Your task to perform on an android device: open app "Etsy: Buy & Sell Unique Items" (install if not already installed) Image 0: 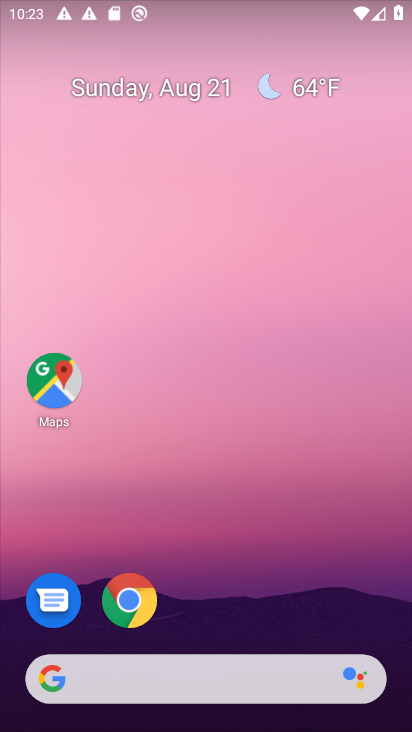
Step 0: drag from (217, 616) to (274, 208)
Your task to perform on an android device: open app "Etsy: Buy & Sell Unique Items" (install if not already installed) Image 1: 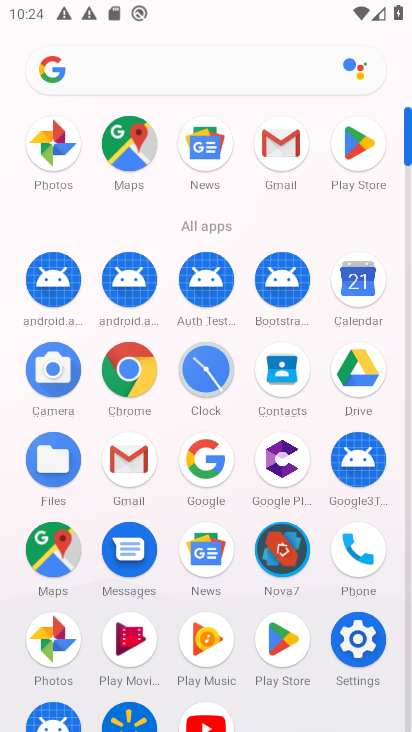
Step 1: click (359, 167)
Your task to perform on an android device: open app "Etsy: Buy & Sell Unique Items" (install if not already installed) Image 2: 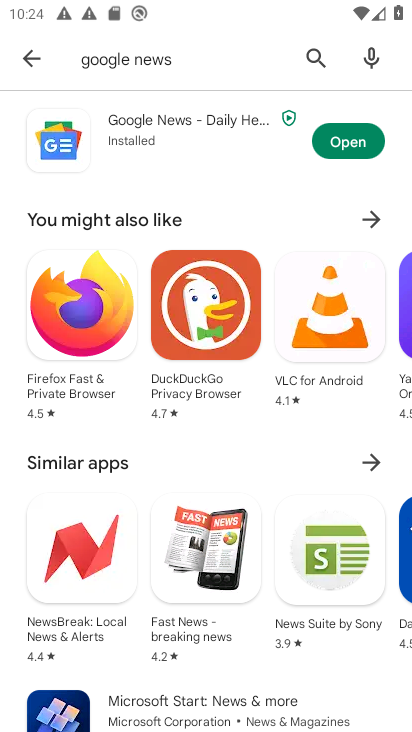
Step 2: click (148, 59)
Your task to perform on an android device: open app "Etsy: Buy & Sell Unique Items" (install if not already installed) Image 3: 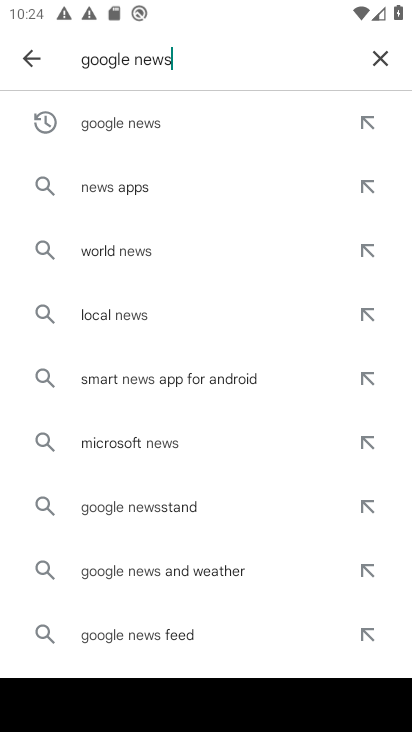
Step 3: click (384, 55)
Your task to perform on an android device: open app "Etsy: Buy & Sell Unique Items" (install if not already installed) Image 4: 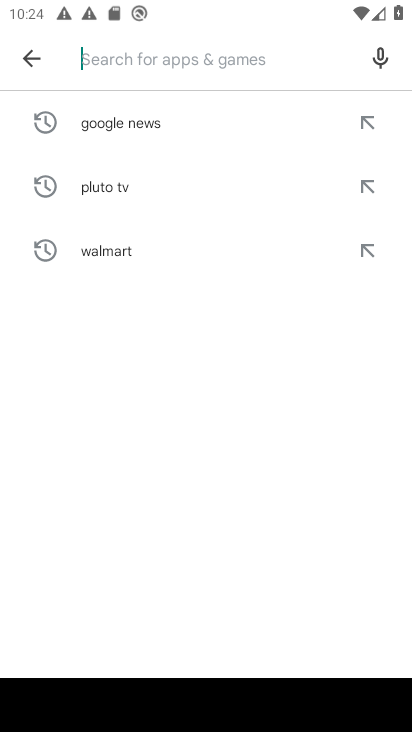
Step 4: type "Etsu"
Your task to perform on an android device: open app "Etsy: Buy & Sell Unique Items" (install if not already installed) Image 5: 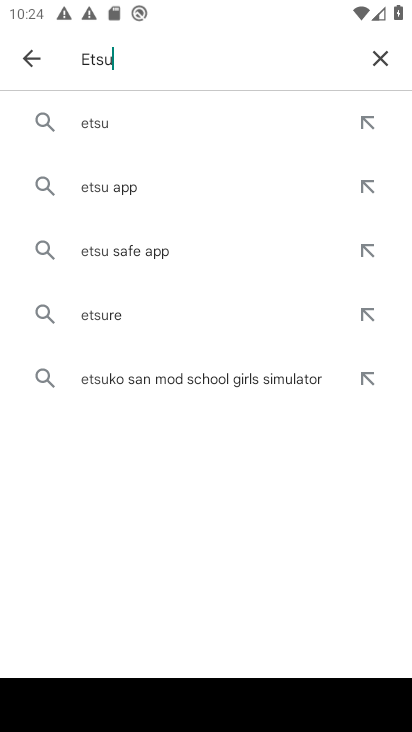
Step 5: click (377, 58)
Your task to perform on an android device: open app "Etsy: Buy & Sell Unique Items" (install if not already installed) Image 6: 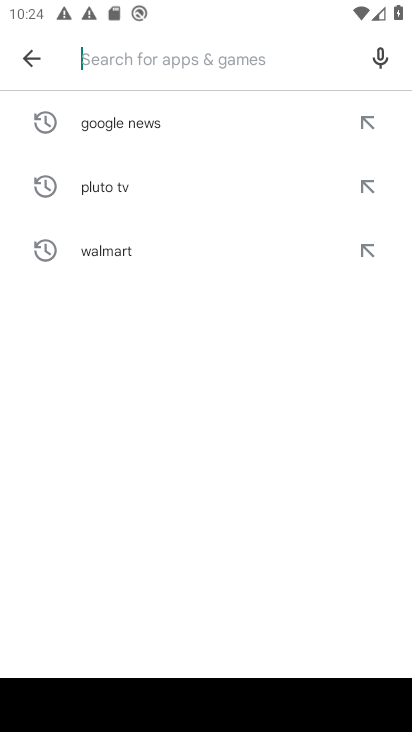
Step 6: type "Etsy"
Your task to perform on an android device: open app "Etsy: Buy & Sell Unique Items" (install if not already installed) Image 7: 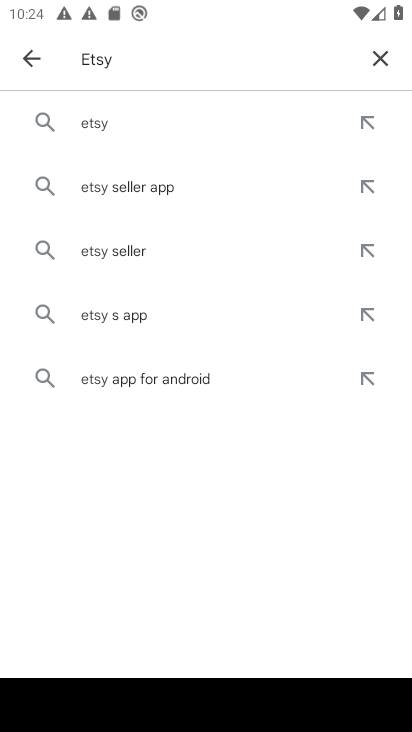
Step 7: click (130, 117)
Your task to perform on an android device: open app "Etsy: Buy & Sell Unique Items" (install if not already installed) Image 8: 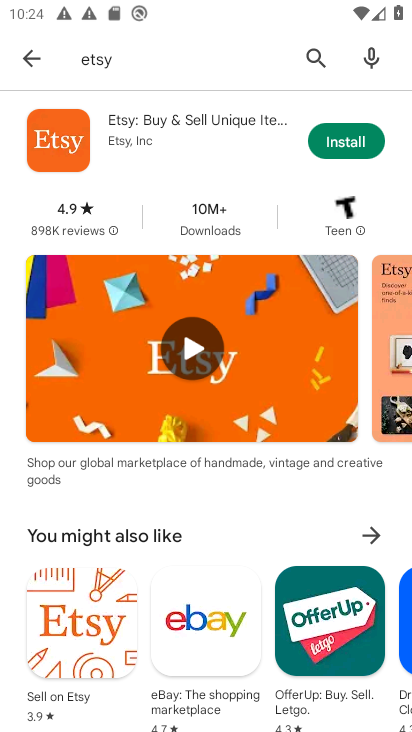
Step 8: click (361, 146)
Your task to perform on an android device: open app "Etsy: Buy & Sell Unique Items" (install if not already installed) Image 9: 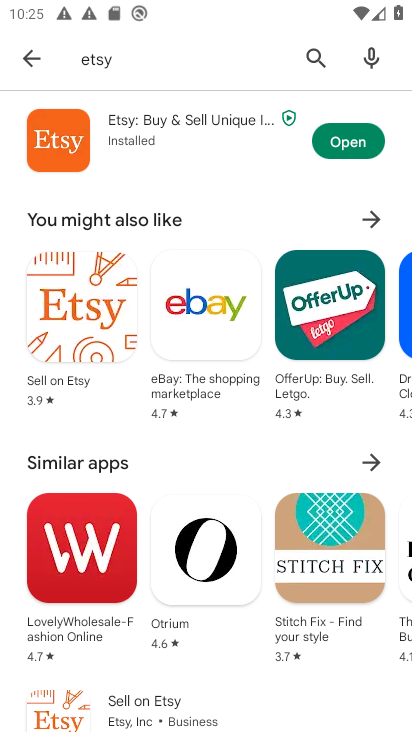
Step 9: click (349, 147)
Your task to perform on an android device: open app "Etsy: Buy & Sell Unique Items" (install if not already installed) Image 10: 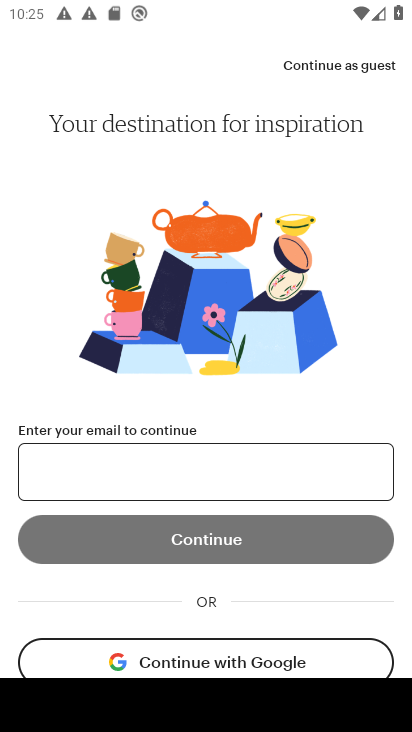
Step 10: task complete